Your task to perform on an android device: Go to Yahoo.com Image 0: 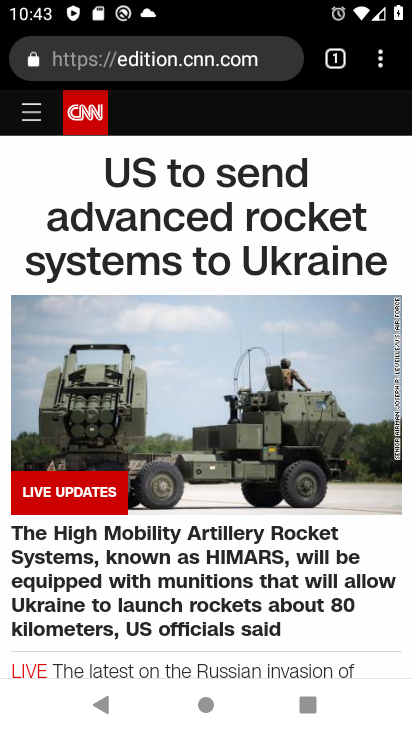
Step 0: click (320, 54)
Your task to perform on an android device: Go to Yahoo.com Image 1: 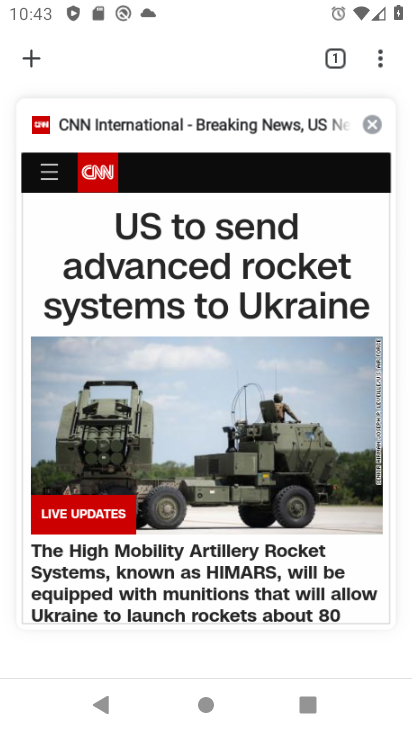
Step 1: click (374, 125)
Your task to perform on an android device: Go to Yahoo.com Image 2: 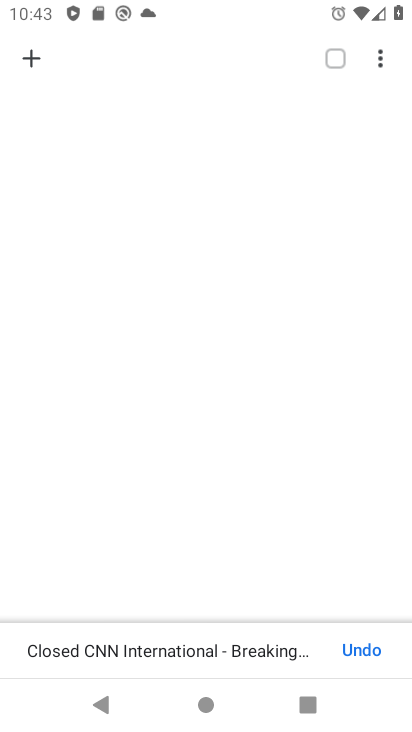
Step 2: click (21, 55)
Your task to perform on an android device: Go to Yahoo.com Image 3: 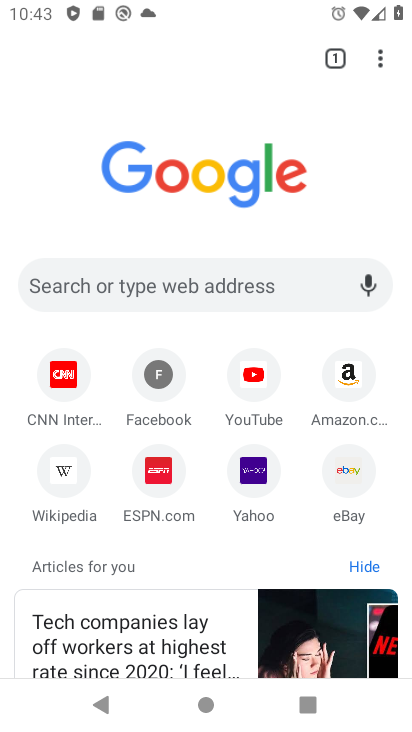
Step 3: click (256, 476)
Your task to perform on an android device: Go to Yahoo.com Image 4: 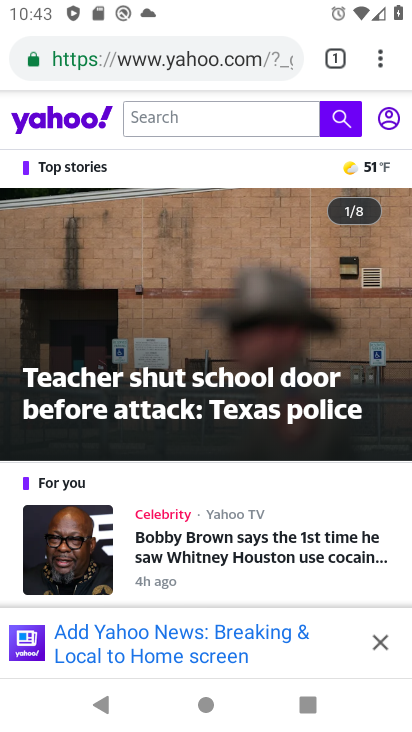
Step 4: task complete